Your task to perform on an android device: toggle data saver in the chrome app Image 0: 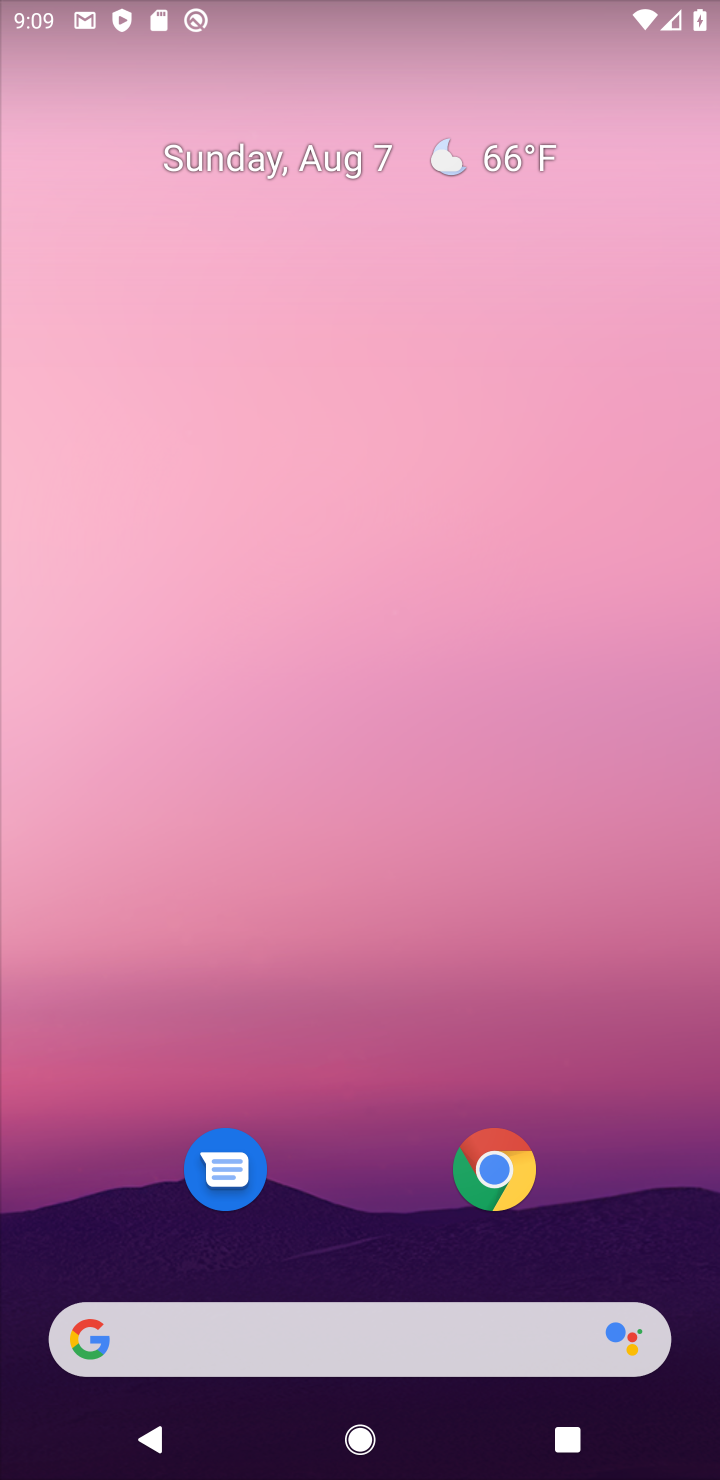
Step 0: drag from (317, 1203) to (112, 14)
Your task to perform on an android device: toggle data saver in the chrome app Image 1: 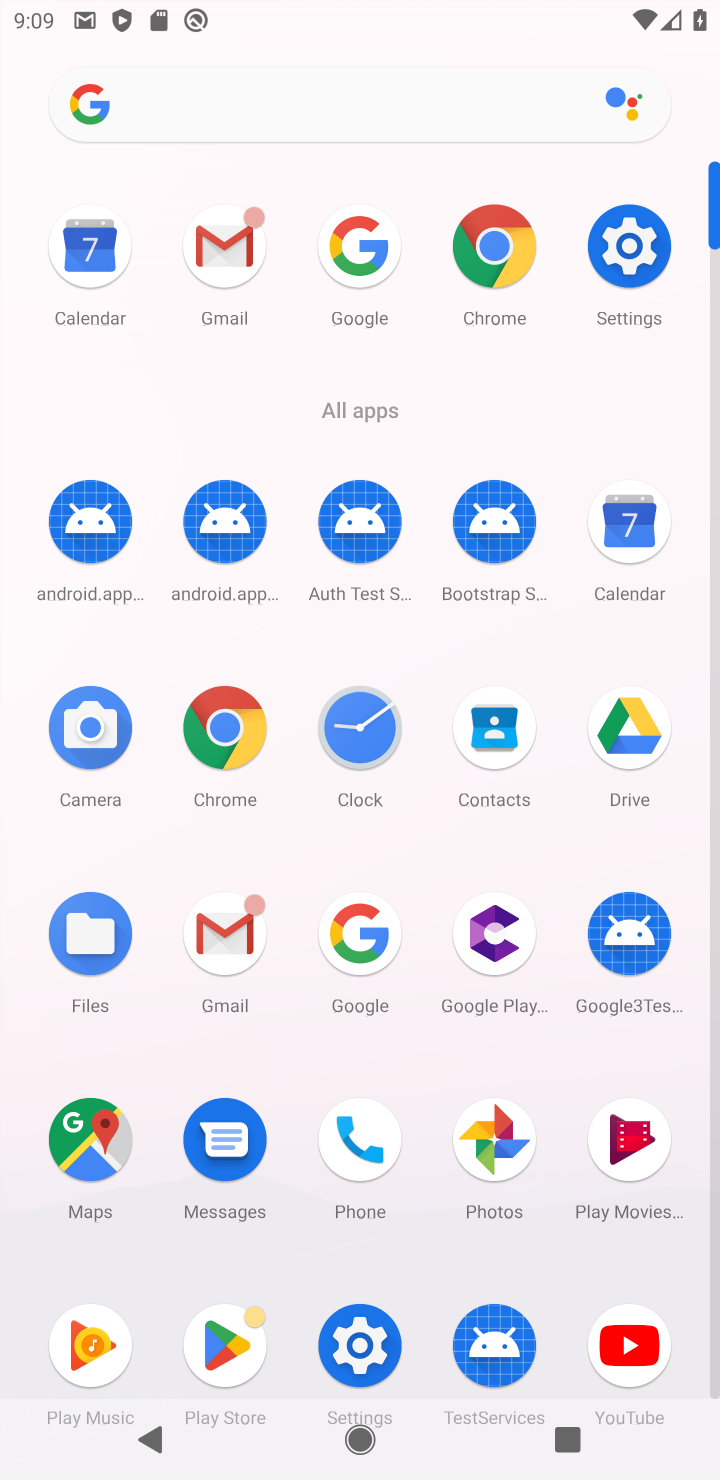
Step 1: click (535, 247)
Your task to perform on an android device: toggle data saver in the chrome app Image 2: 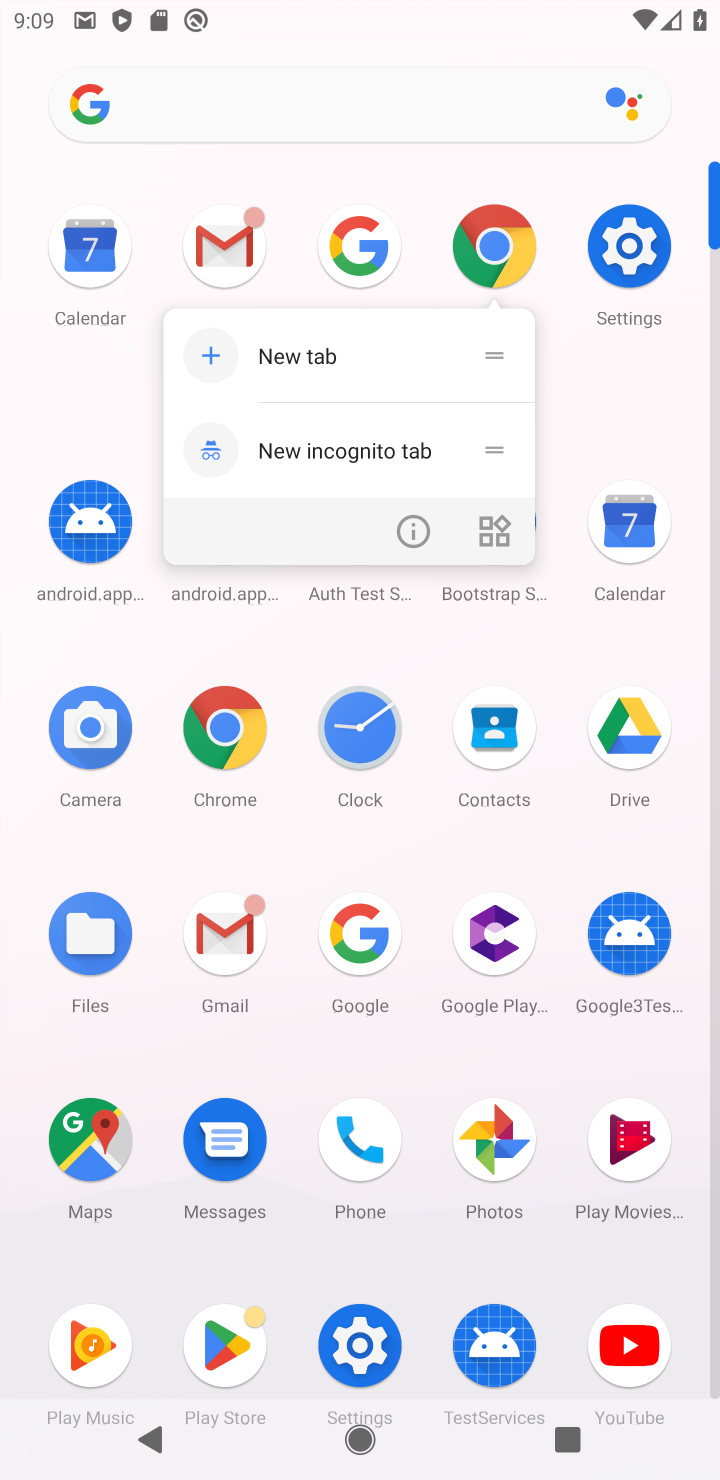
Step 2: click (478, 267)
Your task to perform on an android device: toggle data saver in the chrome app Image 3: 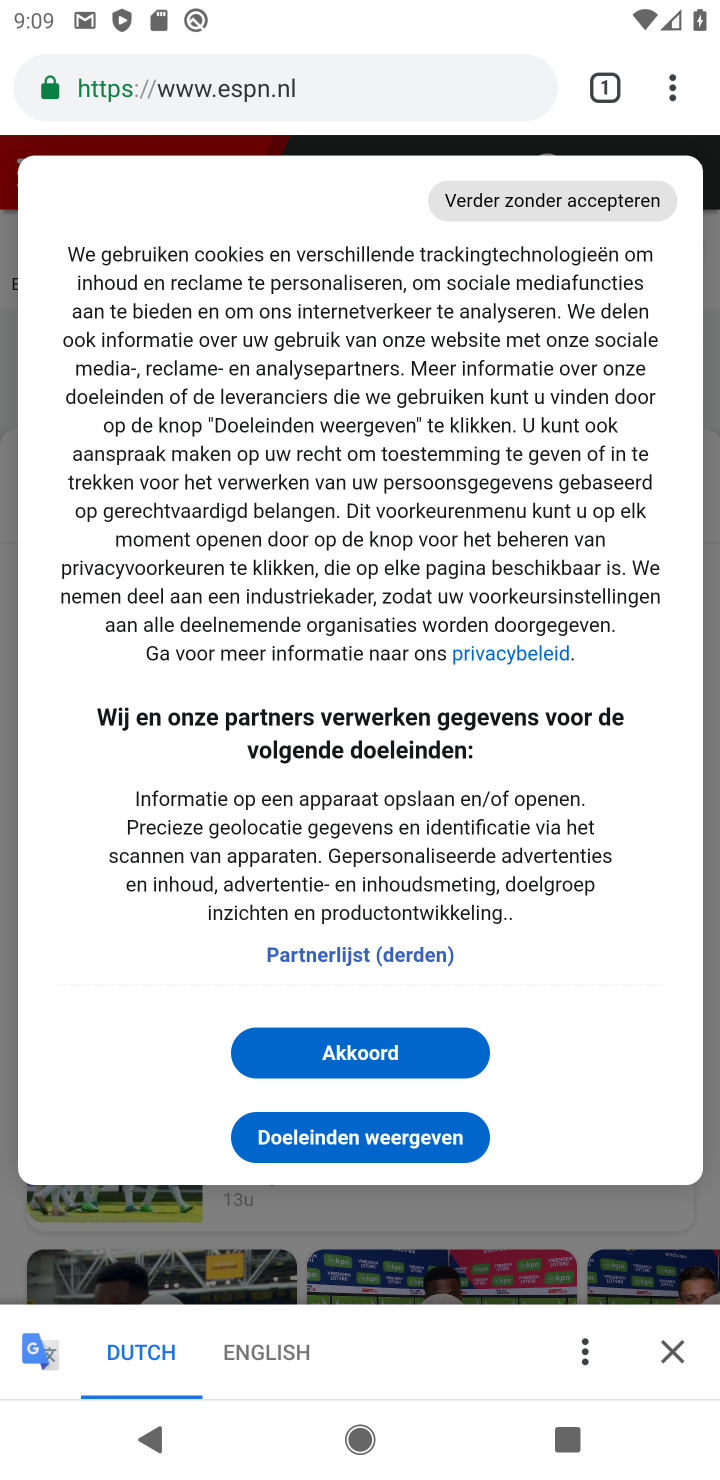
Step 3: drag from (666, 80) to (356, 1060)
Your task to perform on an android device: toggle data saver in the chrome app Image 4: 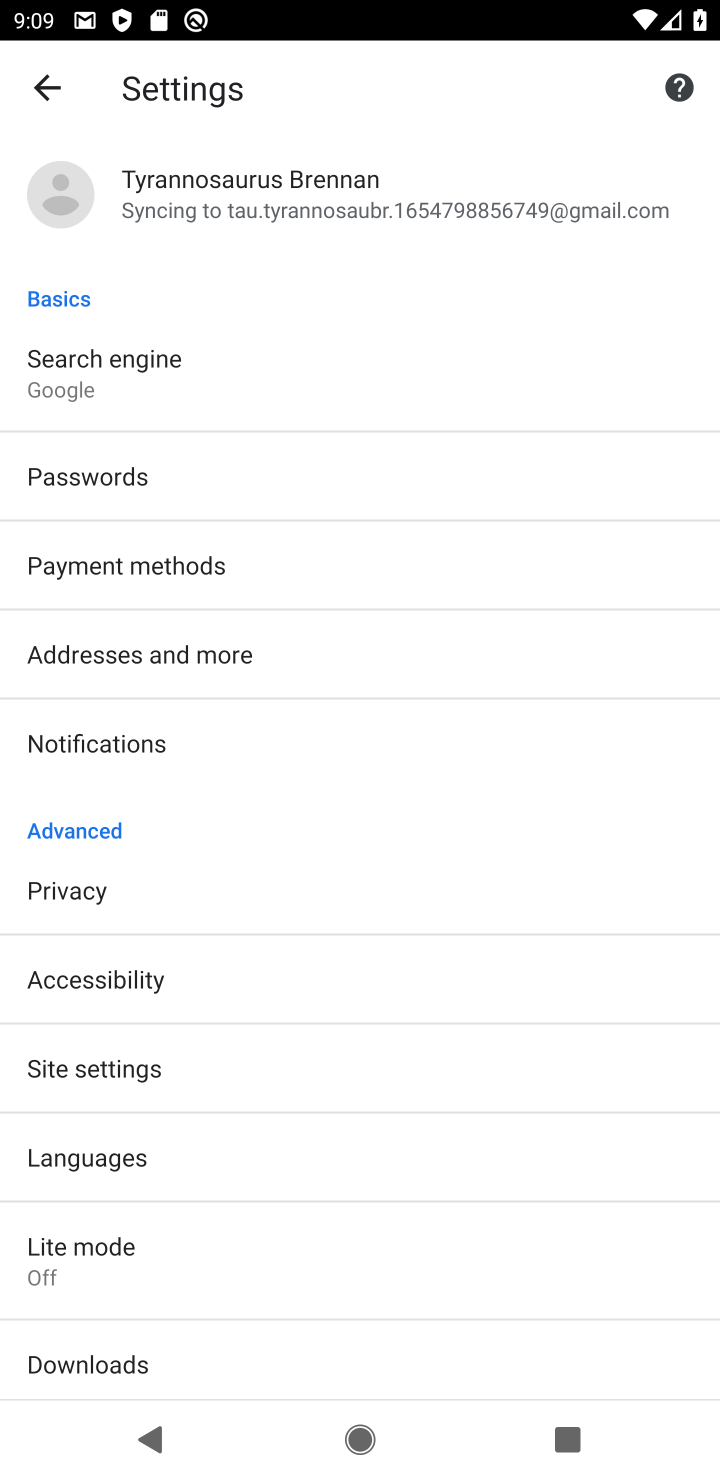
Step 4: click (106, 1052)
Your task to perform on an android device: toggle data saver in the chrome app Image 5: 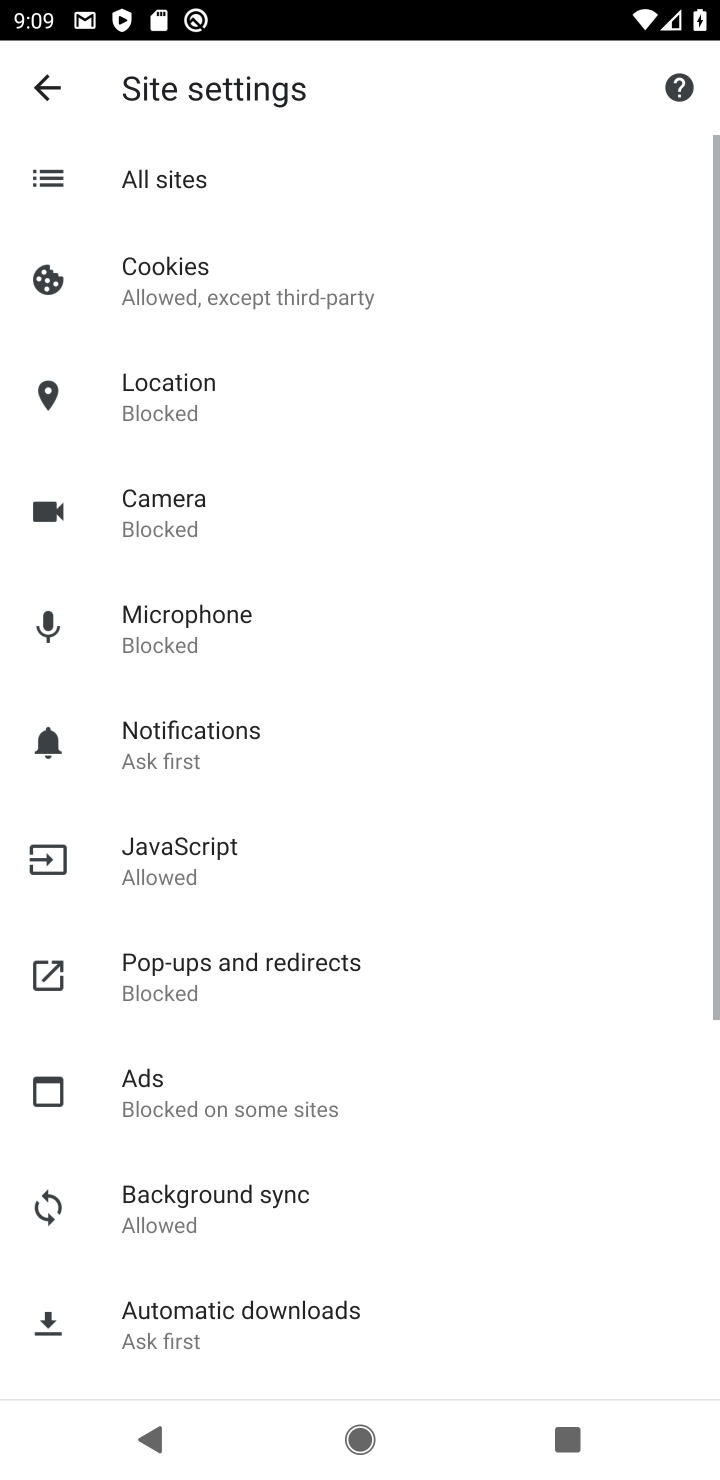
Step 5: click (48, 96)
Your task to perform on an android device: toggle data saver in the chrome app Image 6: 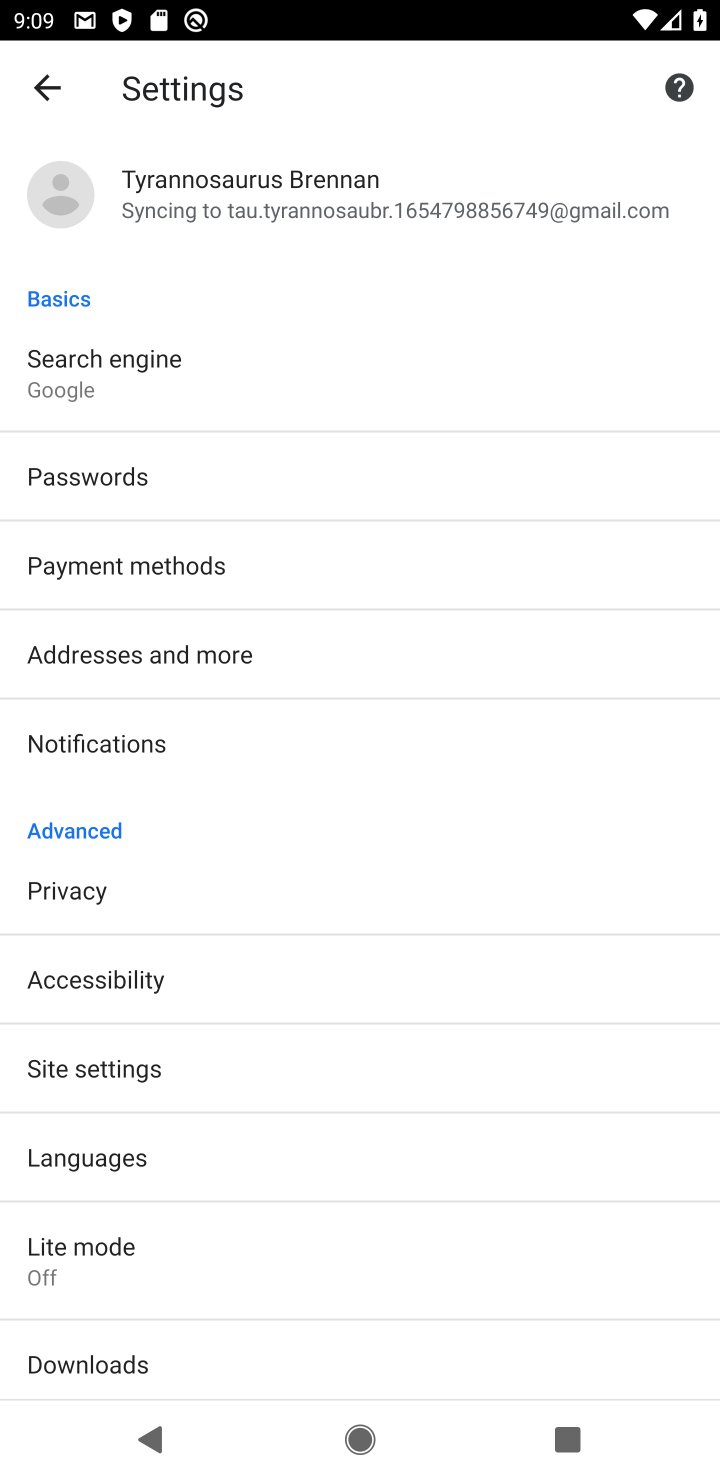
Step 6: click (105, 1265)
Your task to perform on an android device: toggle data saver in the chrome app Image 7: 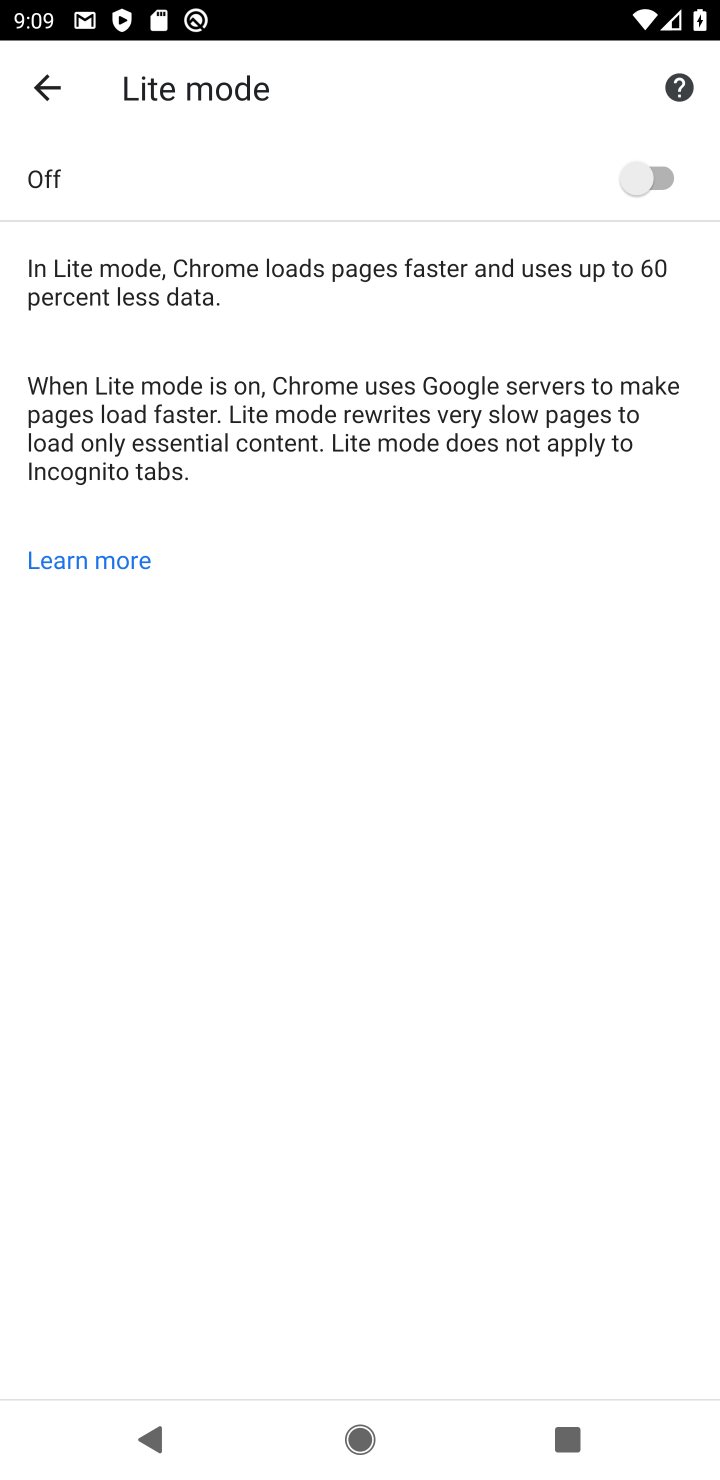
Step 7: click (659, 181)
Your task to perform on an android device: toggle data saver in the chrome app Image 8: 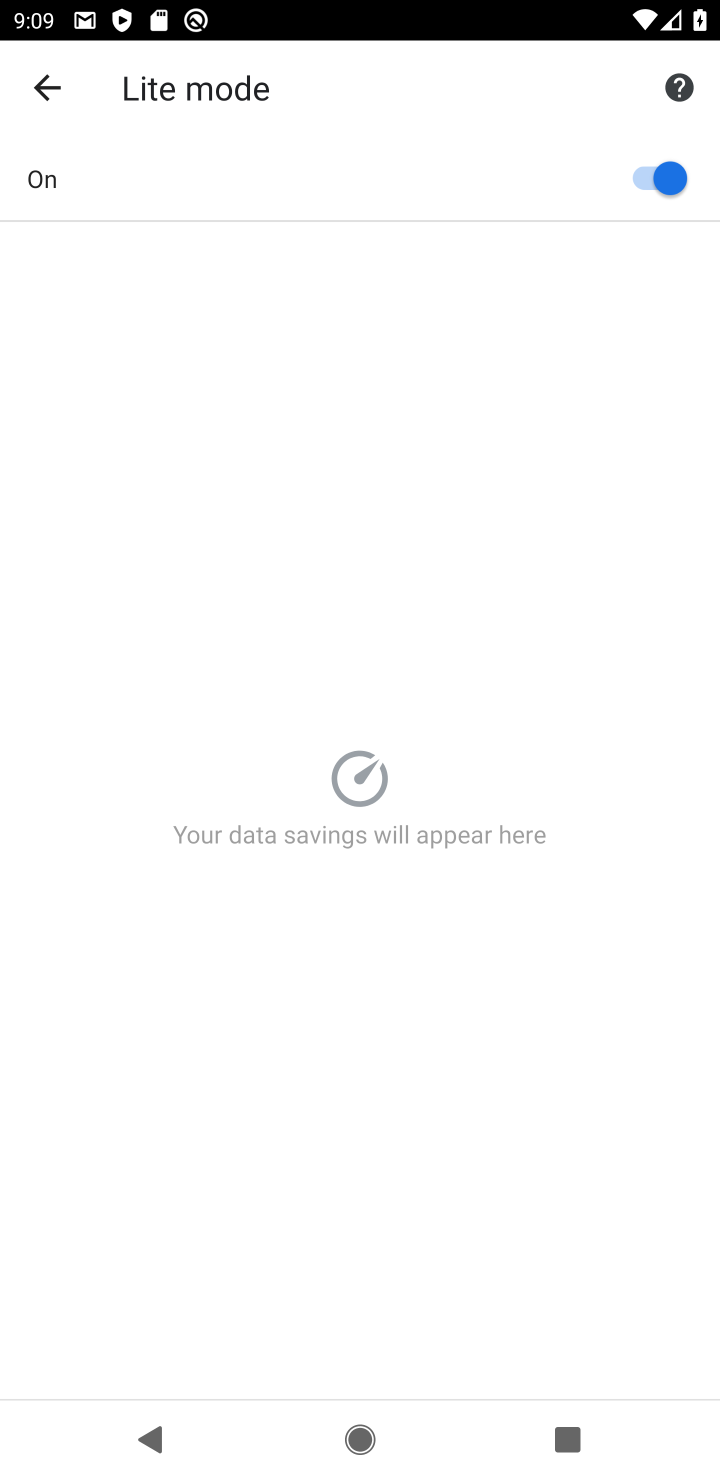
Step 8: task complete